Your task to perform on an android device: Open notification settings Image 0: 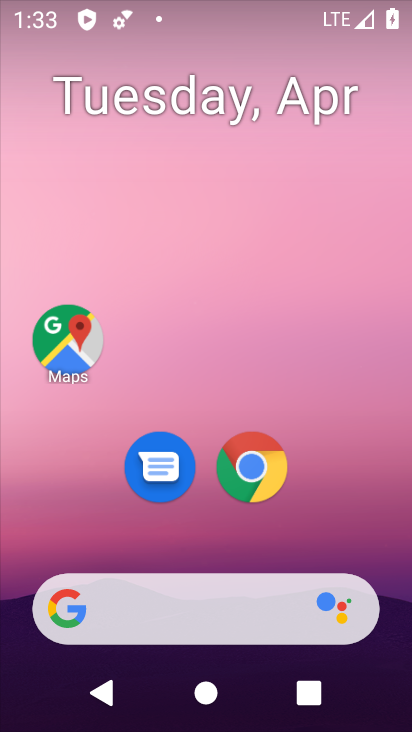
Step 0: drag from (378, 530) to (358, 142)
Your task to perform on an android device: Open notification settings Image 1: 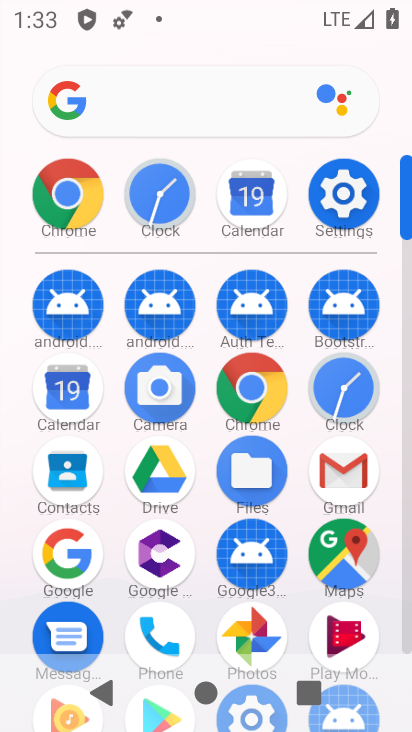
Step 1: click (344, 194)
Your task to perform on an android device: Open notification settings Image 2: 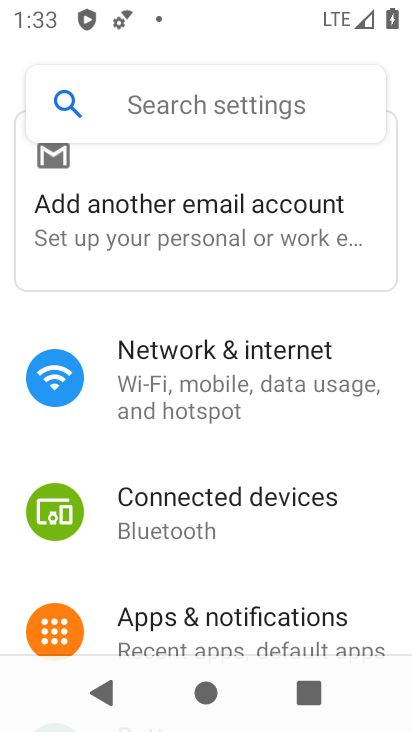
Step 2: drag from (372, 577) to (371, 371)
Your task to perform on an android device: Open notification settings Image 3: 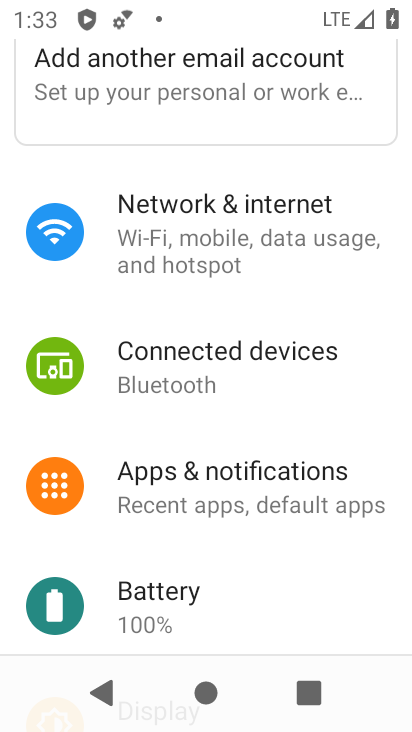
Step 3: drag from (380, 582) to (377, 350)
Your task to perform on an android device: Open notification settings Image 4: 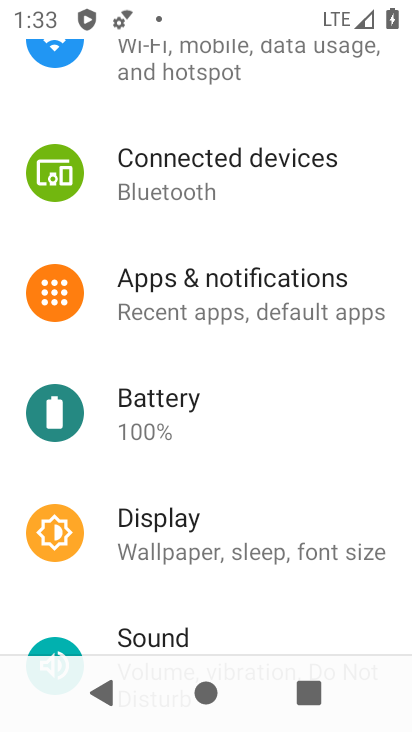
Step 4: drag from (381, 600) to (371, 370)
Your task to perform on an android device: Open notification settings Image 5: 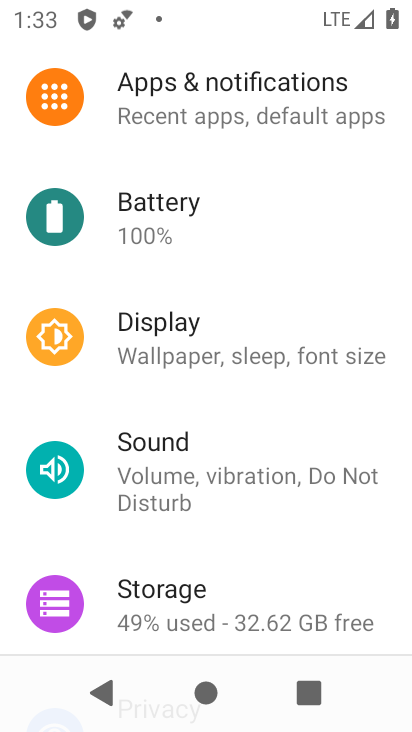
Step 5: drag from (373, 556) to (380, 324)
Your task to perform on an android device: Open notification settings Image 6: 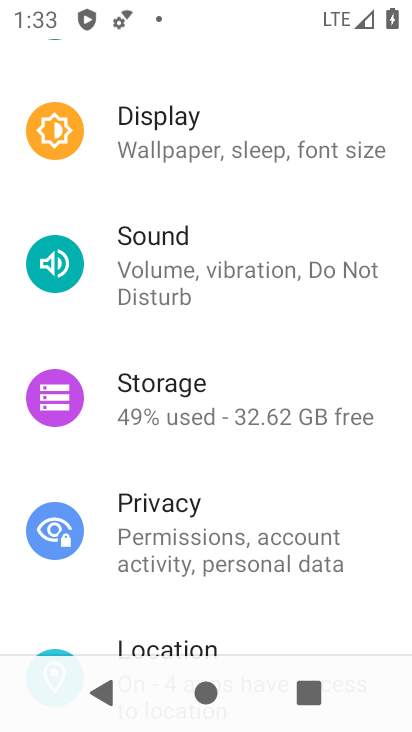
Step 6: drag from (376, 583) to (376, 378)
Your task to perform on an android device: Open notification settings Image 7: 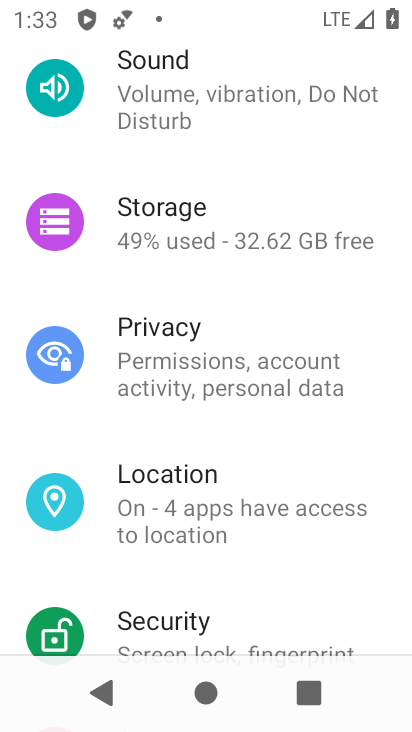
Step 7: drag from (379, 581) to (368, 348)
Your task to perform on an android device: Open notification settings Image 8: 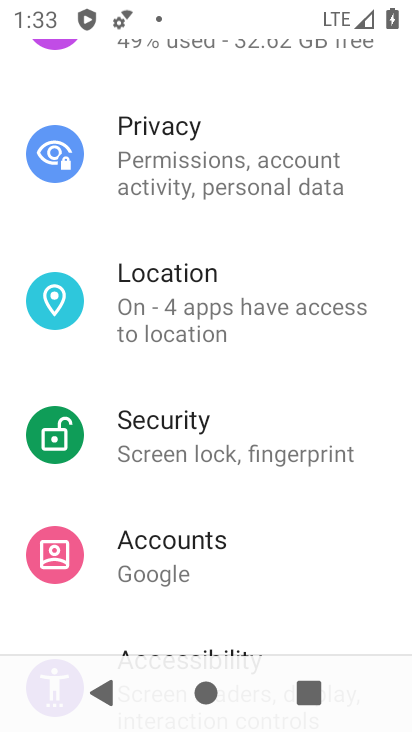
Step 8: drag from (358, 571) to (352, 338)
Your task to perform on an android device: Open notification settings Image 9: 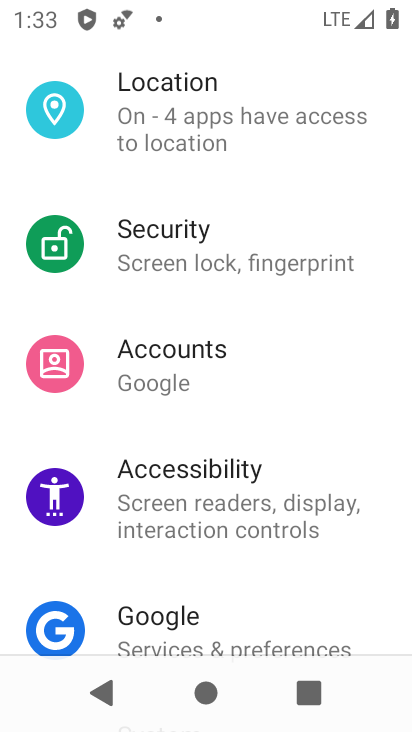
Step 9: drag from (354, 587) to (370, 344)
Your task to perform on an android device: Open notification settings Image 10: 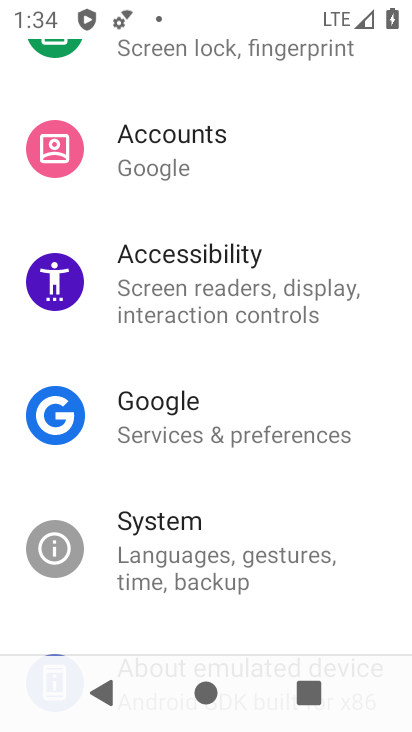
Step 10: drag from (364, 584) to (383, 340)
Your task to perform on an android device: Open notification settings Image 11: 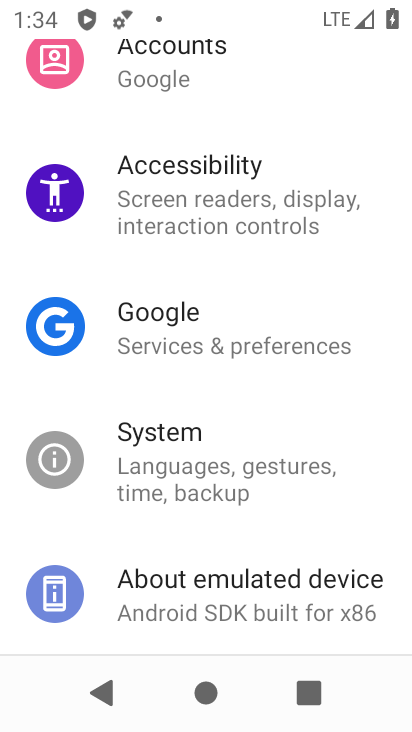
Step 11: drag from (386, 181) to (365, 468)
Your task to perform on an android device: Open notification settings Image 12: 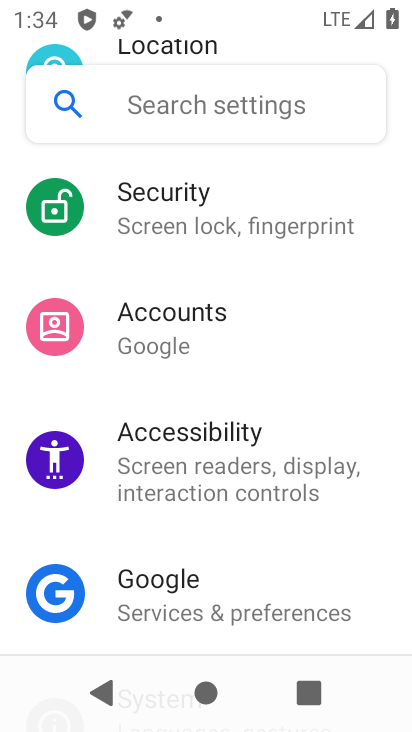
Step 12: drag from (385, 197) to (387, 479)
Your task to perform on an android device: Open notification settings Image 13: 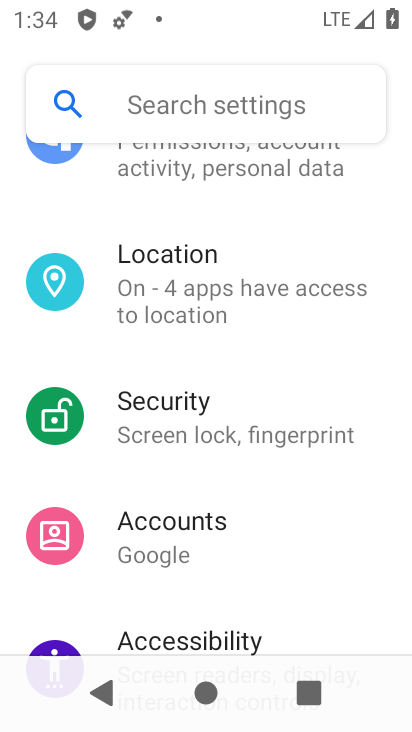
Step 13: drag from (387, 244) to (380, 504)
Your task to perform on an android device: Open notification settings Image 14: 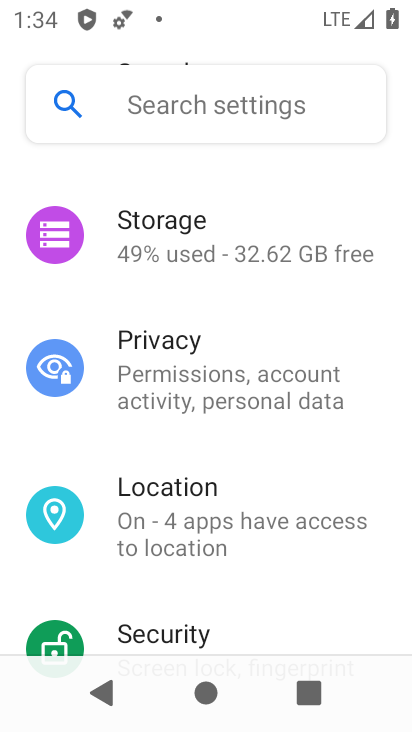
Step 14: drag from (382, 226) to (384, 459)
Your task to perform on an android device: Open notification settings Image 15: 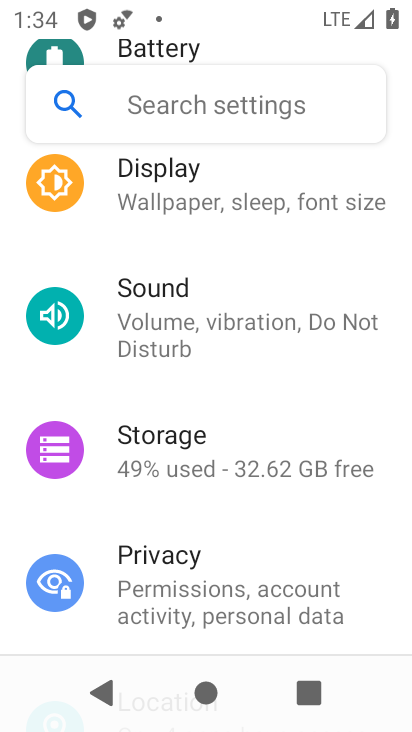
Step 15: drag from (389, 229) to (382, 443)
Your task to perform on an android device: Open notification settings Image 16: 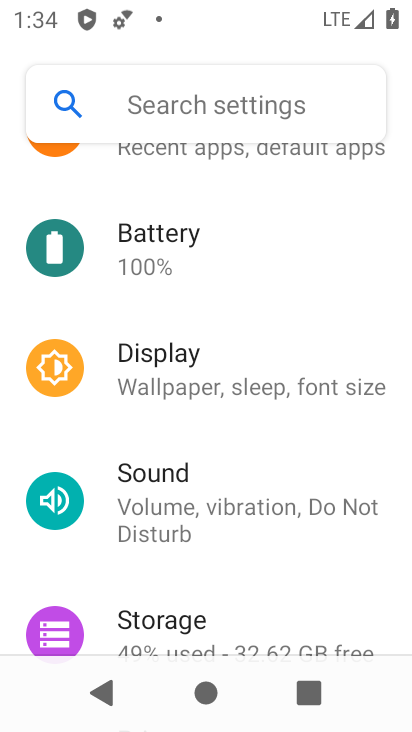
Step 16: drag from (374, 214) to (367, 469)
Your task to perform on an android device: Open notification settings Image 17: 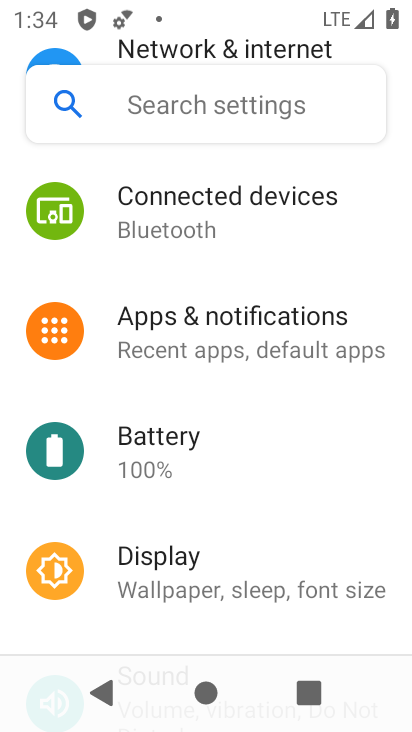
Step 17: click (249, 323)
Your task to perform on an android device: Open notification settings Image 18: 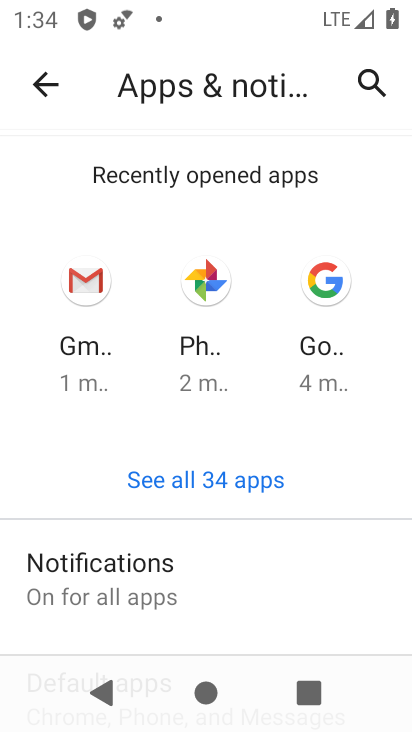
Step 18: drag from (317, 532) to (364, 247)
Your task to perform on an android device: Open notification settings Image 19: 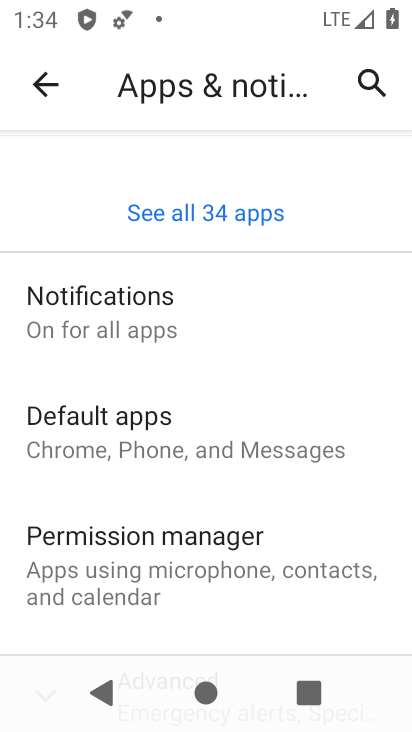
Step 19: click (74, 330)
Your task to perform on an android device: Open notification settings Image 20: 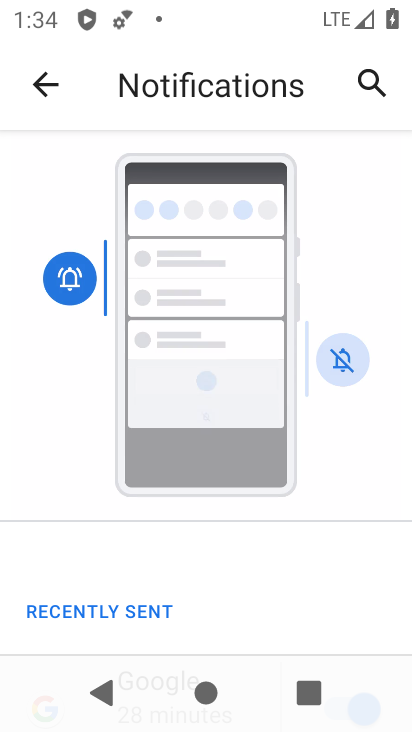
Step 20: task complete